Your task to perform on an android device: Open sound settings Image 0: 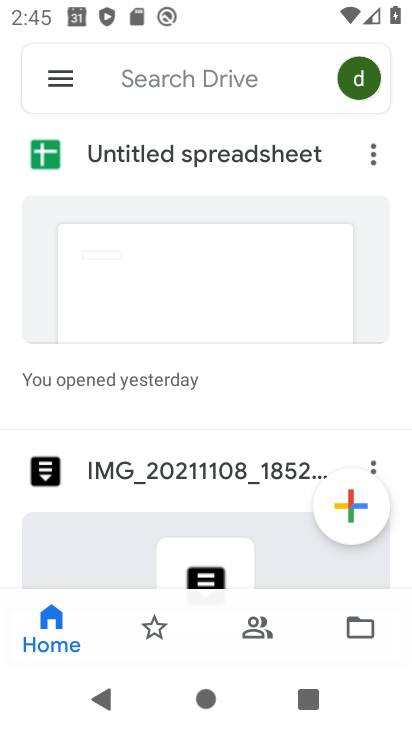
Step 0: press home button
Your task to perform on an android device: Open sound settings Image 1: 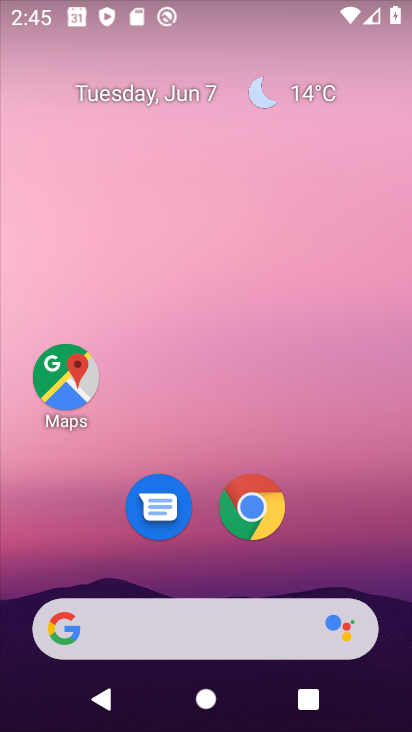
Step 1: drag from (340, 521) to (289, 150)
Your task to perform on an android device: Open sound settings Image 2: 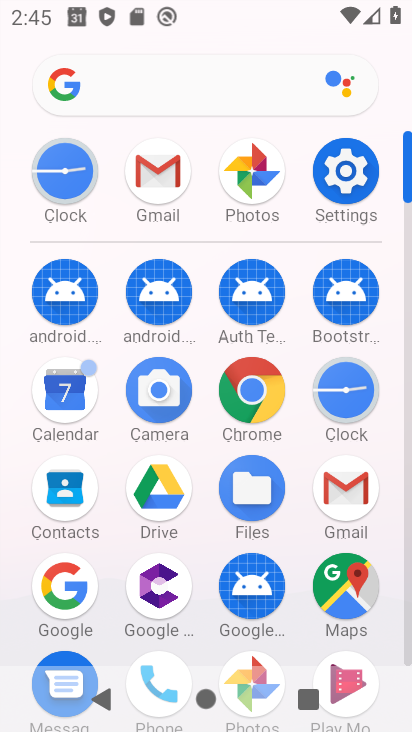
Step 2: click (364, 175)
Your task to perform on an android device: Open sound settings Image 3: 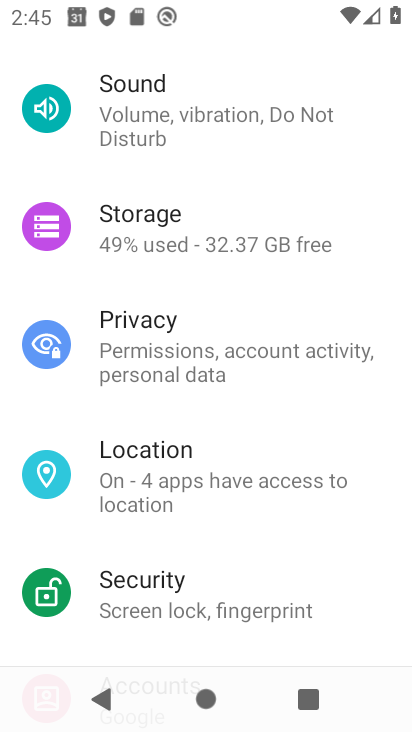
Step 3: click (213, 129)
Your task to perform on an android device: Open sound settings Image 4: 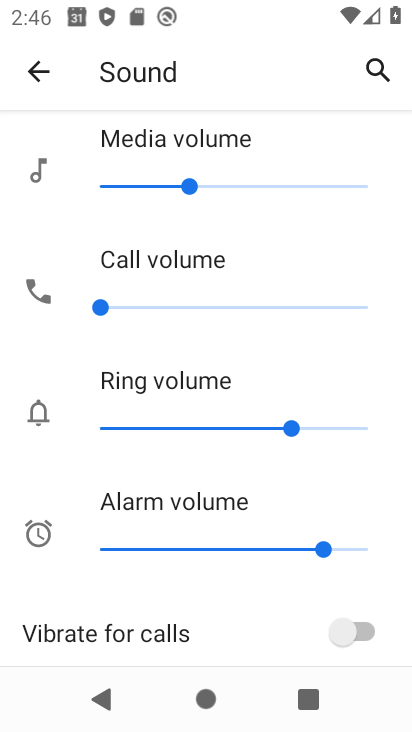
Step 4: task complete